Your task to perform on an android device: Go to Google maps Image 0: 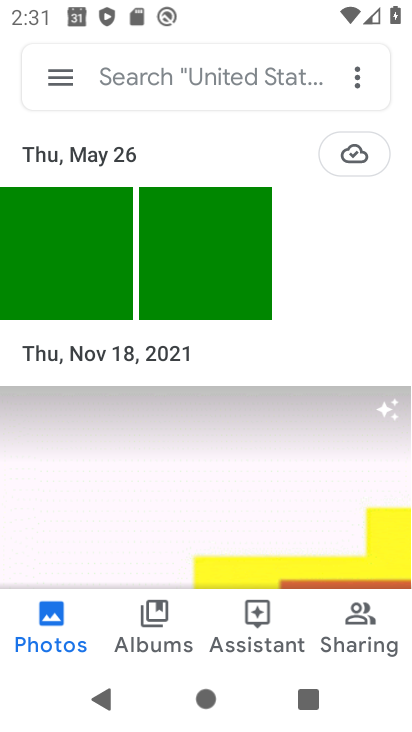
Step 0: press home button
Your task to perform on an android device: Go to Google maps Image 1: 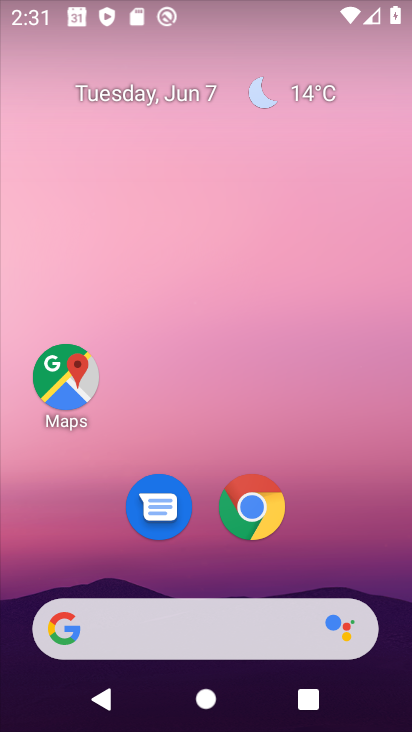
Step 1: click (68, 376)
Your task to perform on an android device: Go to Google maps Image 2: 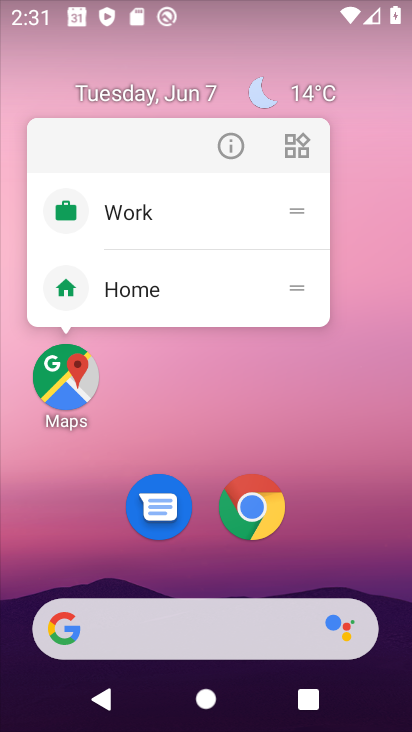
Step 2: click (65, 382)
Your task to perform on an android device: Go to Google maps Image 3: 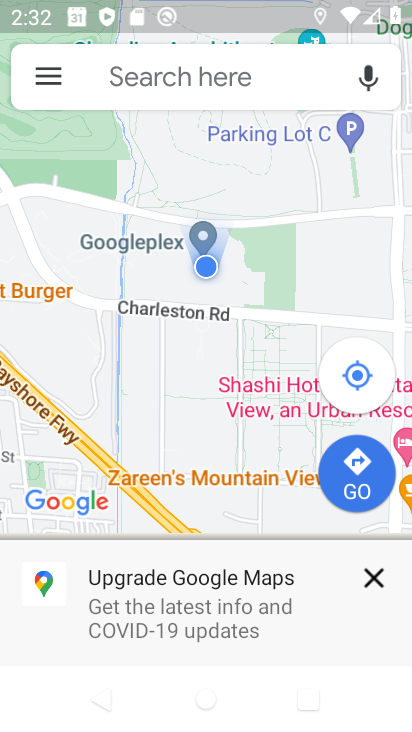
Step 3: task complete